Your task to perform on an android device: Open Yahoo.com Image 0: 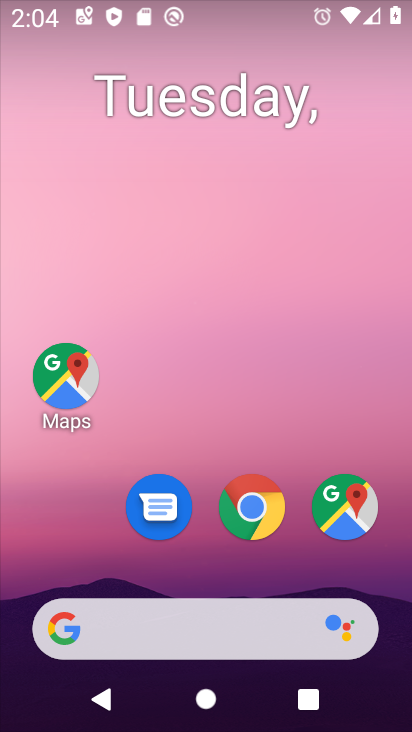
Step 0: drag from (239, 536) to (291, 179)
Your task to perform on an android device: Open Yahoo.com Image 1: 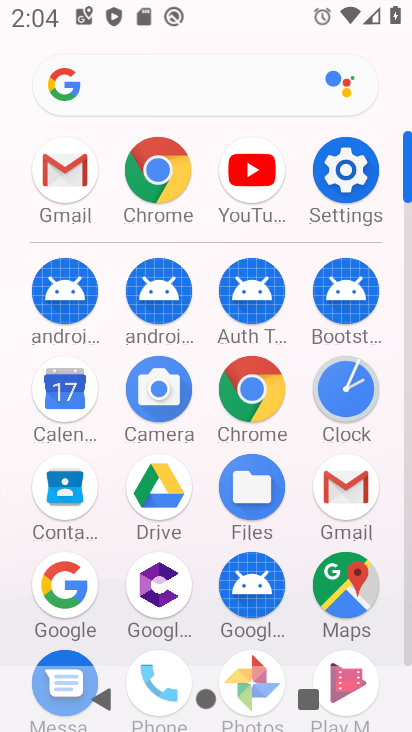
Step 1: click (156, 177)
Your task to perform on an android device: Open Yahoo.com Image 2: 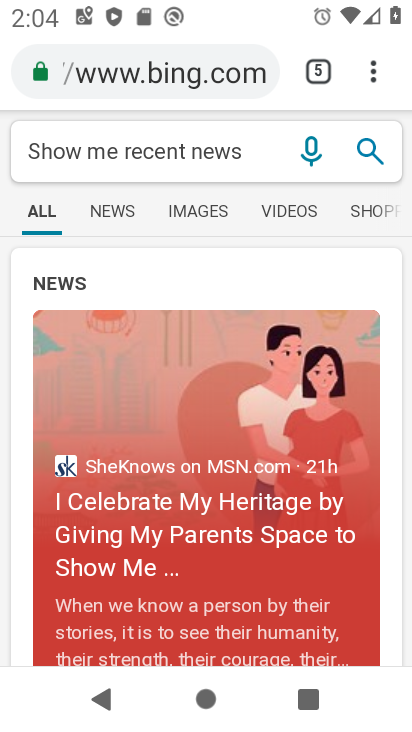
Step 2: click (374, 71)
Your task to perform on an android device: Open Yahoo.com Image 3: 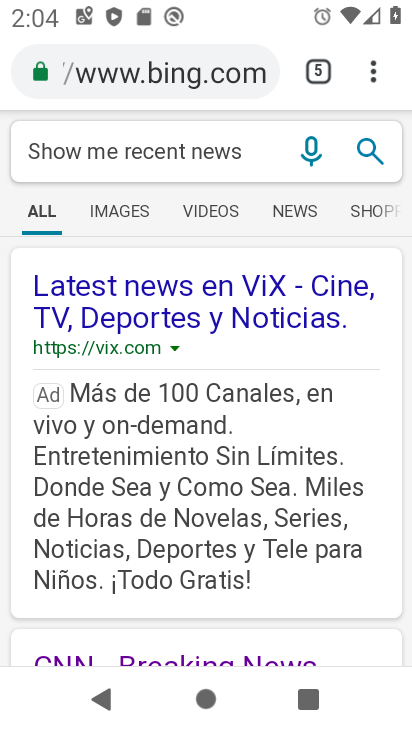
Step 3: click (368, 65)
Your task to perform on an android device: Open Yahoo.com Image 4: 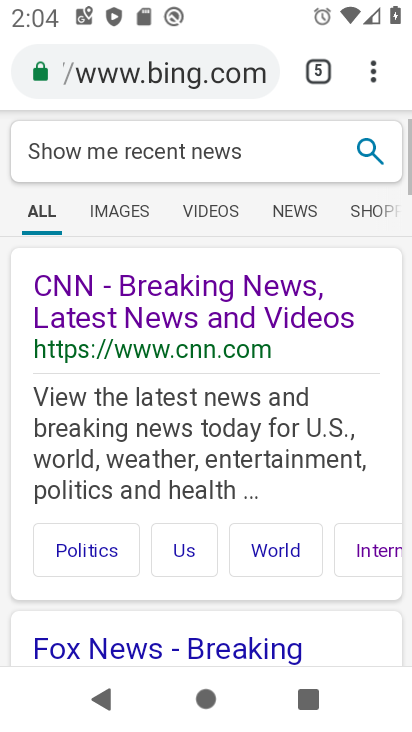
Step 4: click (362, 75)
Your task to perform on an android device: Open Yahoo.com Image 5: 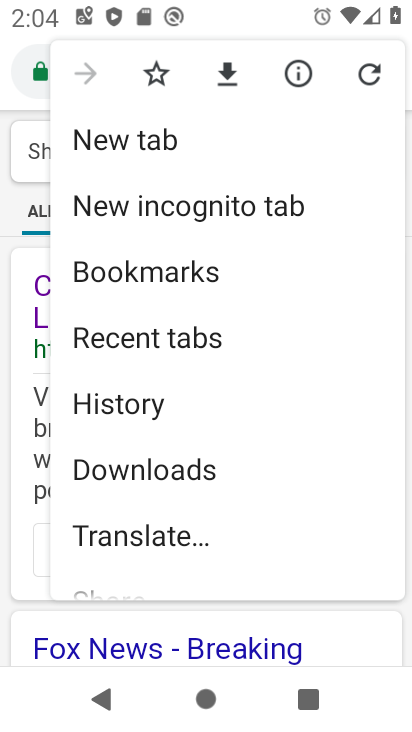
Step 5: click (176, 145)
Your task to perform on an android device: Open Yahoo.com Image 6: 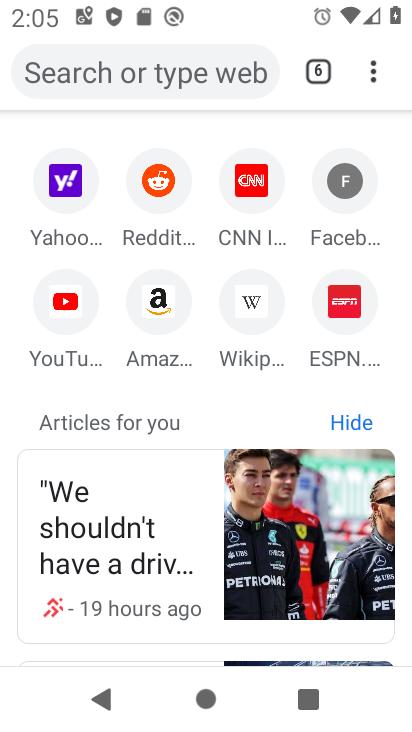
Step 6: click (75, 172)
Your task to perform on an android device: Open Yahoo.com Image 7: 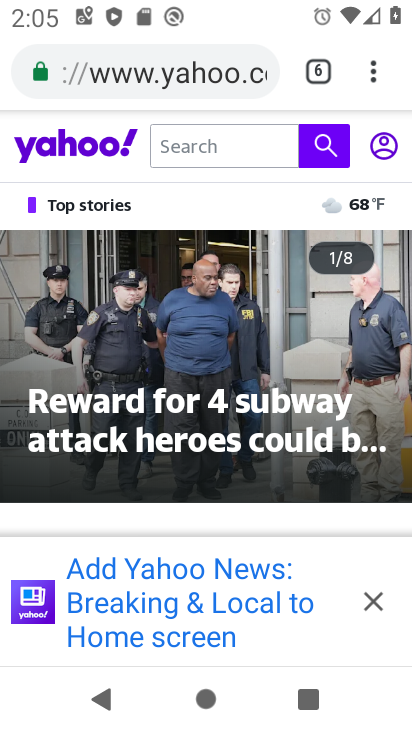
Step 7: task complete